Your task to perform on an android device: turn off wifi Image 0: 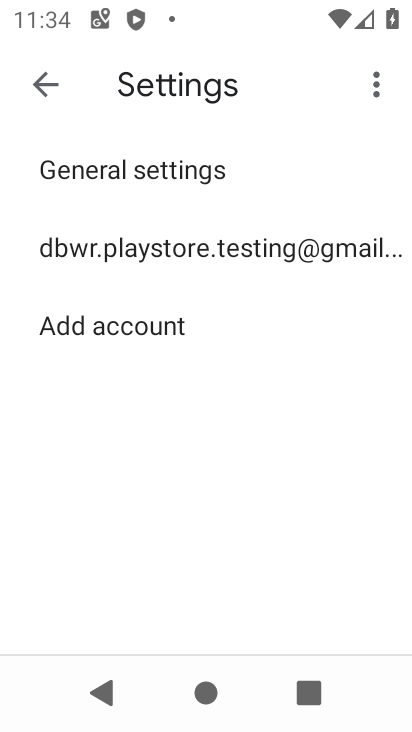
Step 0: press back button
Your task to perform on an android device: turn off wifi Image 1: 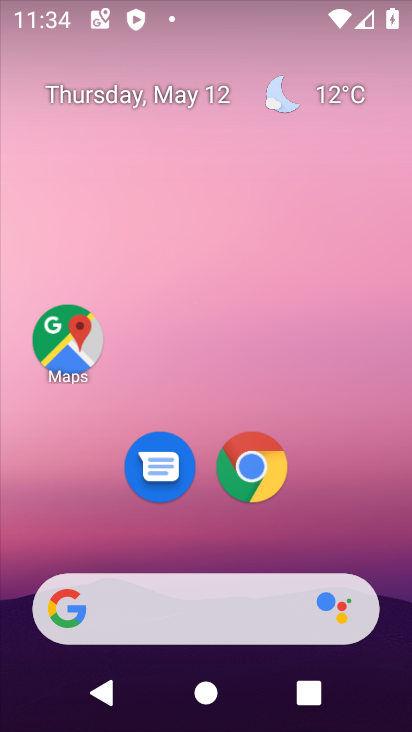
Step 1: drag from (359, 507) to (288, 18)
Your task to perform on an android device: turn off wifi Image 2: 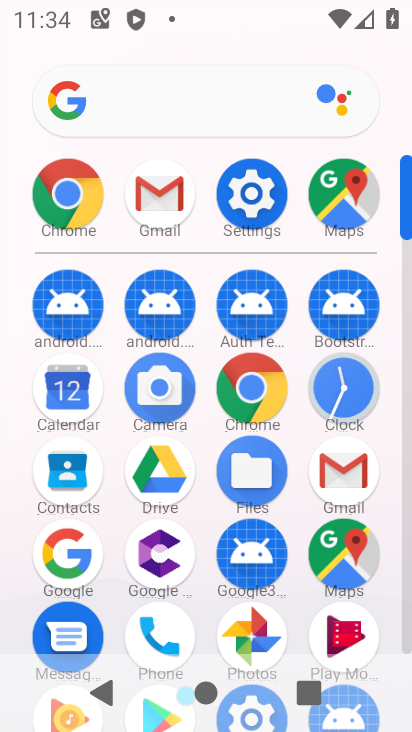
Step 2: click (250, 191)
Your task to perform on an android device: turn off wifi Image 3: 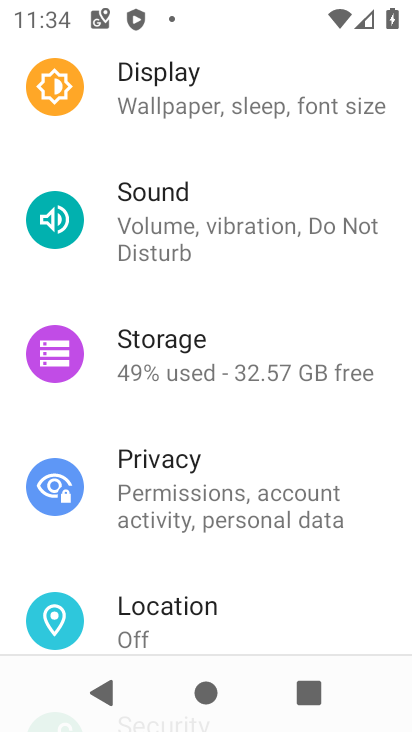
Step 3: drag from (250, 163) to (272, 570)
Your task to perform on an android device: turn off wifi Image 4: 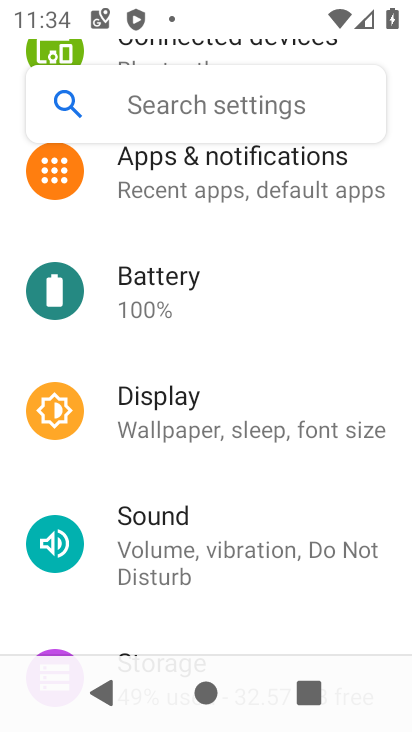
Step 4: drag from (253, 202) to (270, 566)
Your task to perform on an android device: turn off wifi Image 5: 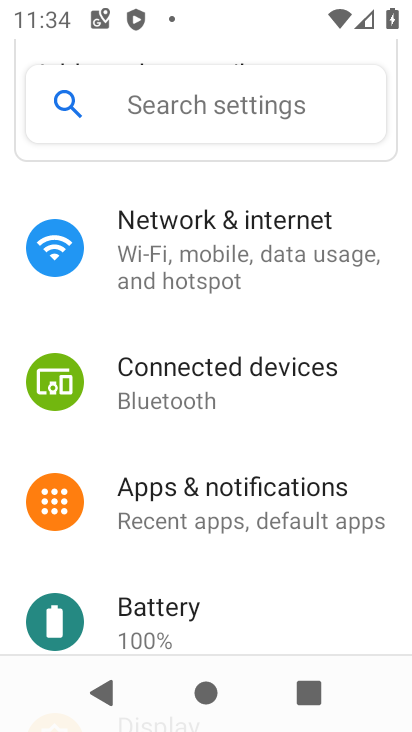
Step 5: click (247, 250)
Your task to perform on an android device: turn off wifi Image 6: 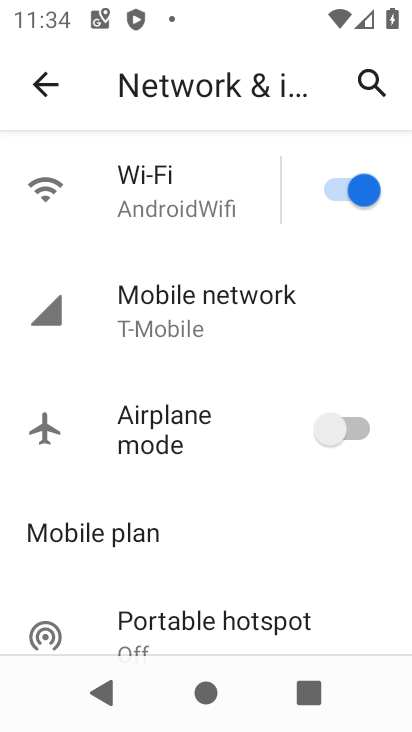
Step 6: click (333, 175)
Your task to perform on an android device: turn off wifi Image 7: 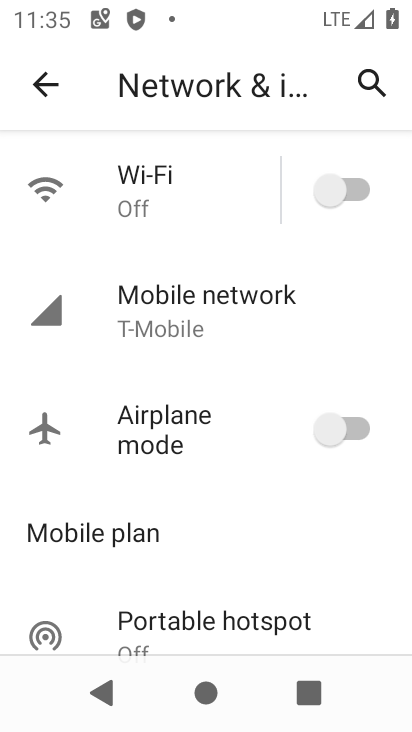
Step 7: click (192, 516)
Your task to perform on an android device: turn off wifi Image 8: 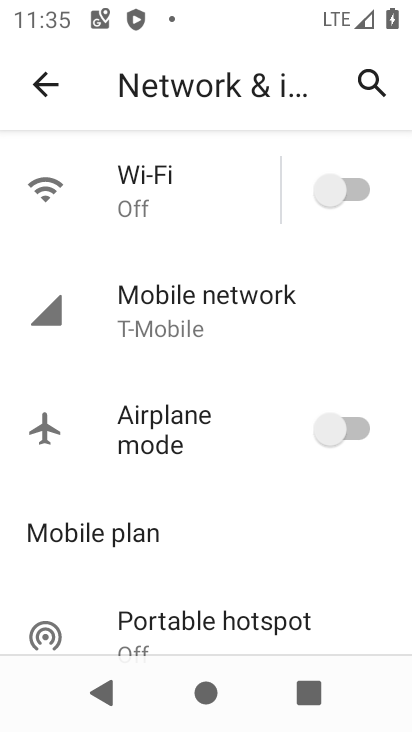
Step 8: task complete